Your task to perform on an android device: check storage Image 0: 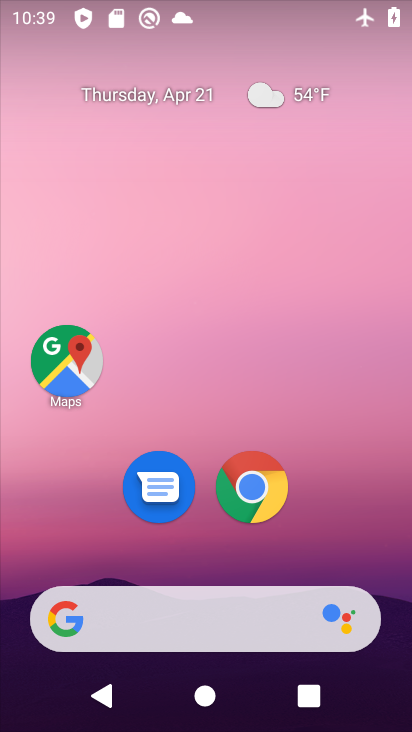
Step 0: click (310, 431)
Your task to perform on an android device: check storage Image 1: 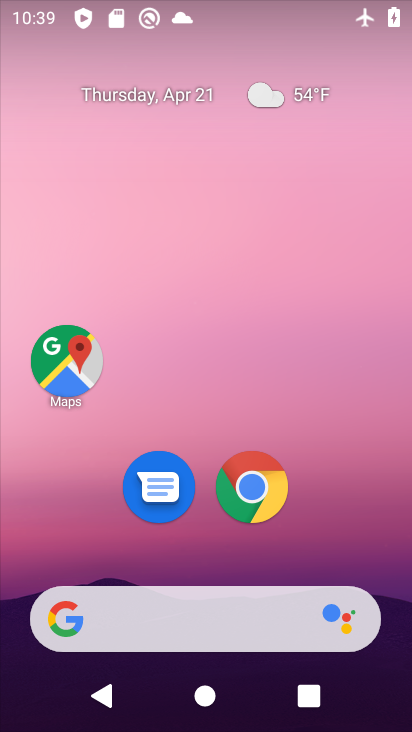
Step 1: drag from (351, 509) to (335, 192)
Your task to perform on an android device: check storage Image 2: 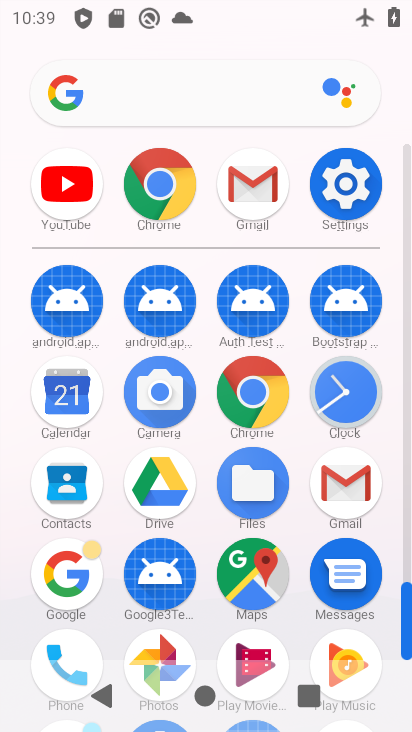
Step 2: click (340, 196)
Your task to perform on an android device: check storage Image 3: 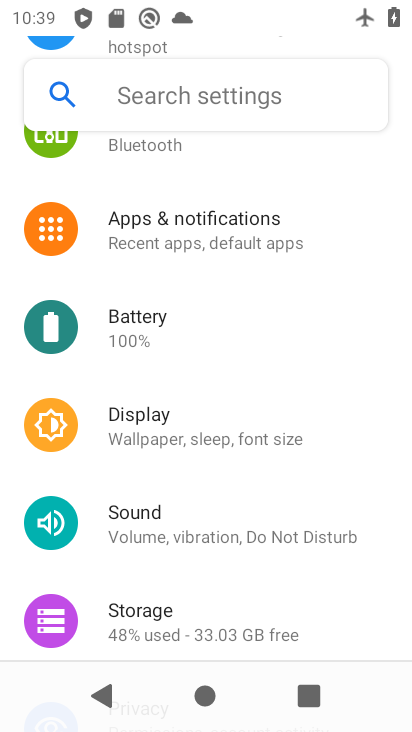
Step 3: click (217, 621)
Your task to perform on an android device: check storage Image 4: 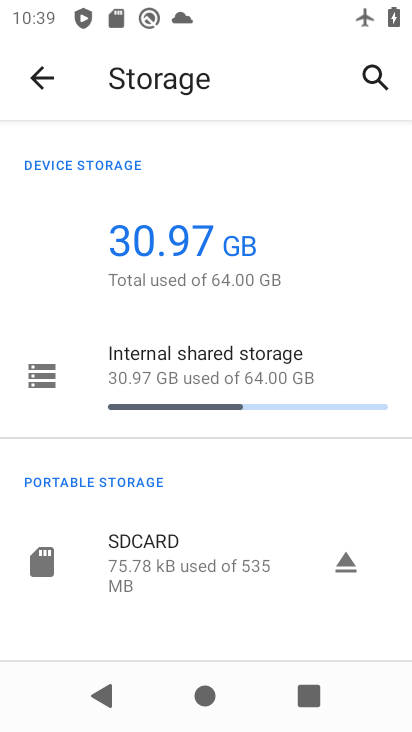
Step 4: click (35, 384)
Your task to perform on an android device: check storage Image 5: 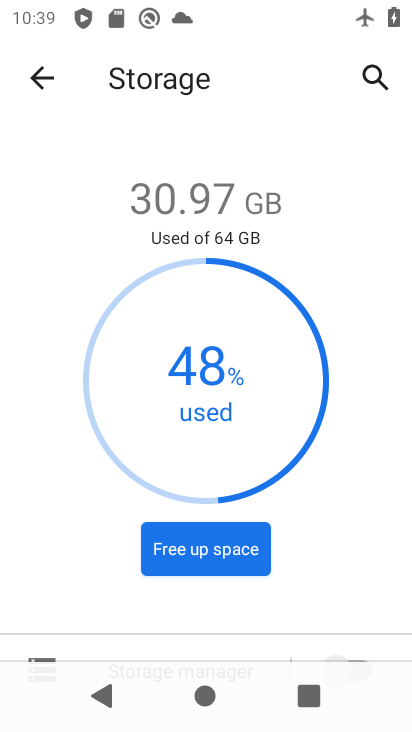
Step 5: task complete